Your task to perform on an android device: delete a single message in the gmail app Image 0: 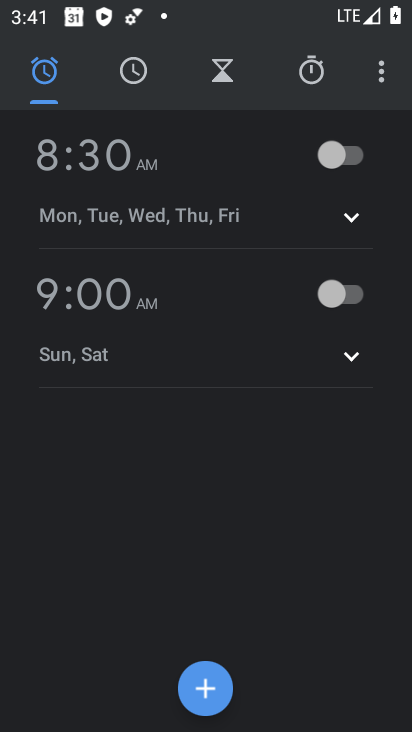
Step 0: press home button
Your task to perform on an android device: delete a single message in the gmail app Image 1: 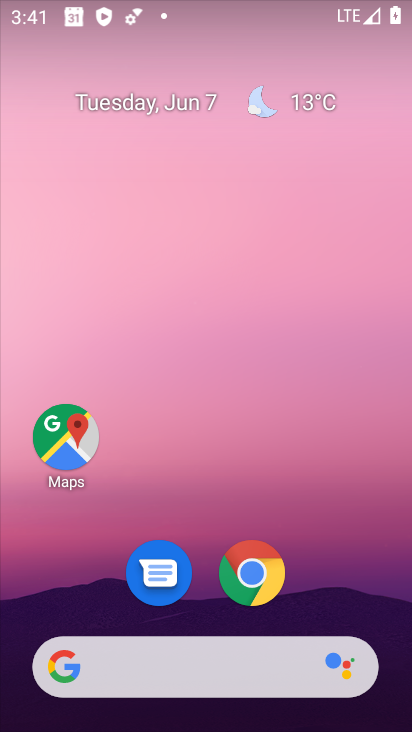
Step 1: drag from (387, 608) to (337, 251)
Your task to perform on an android device: delete a single message in the gmail app Image 2: 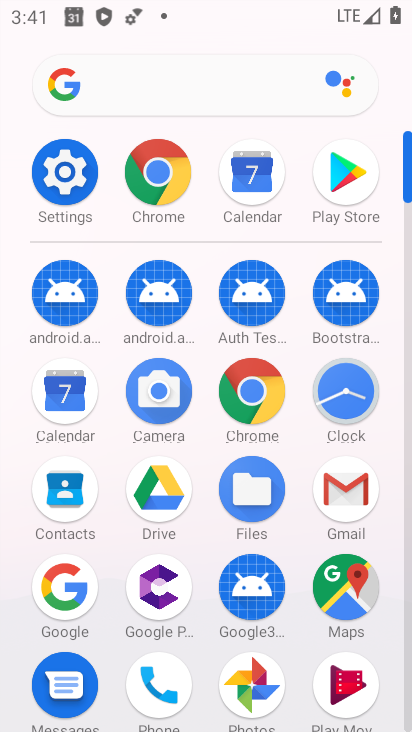
Step 2: click (363, 486)
Your task to perform on an android device: delete a single message in the gmail app Image 3: 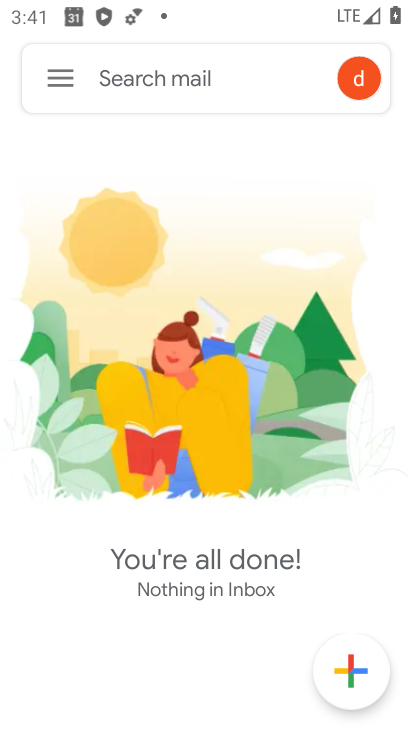
Step 3: task complete